Your task to perform on an android device: What's the weather today? Image 0: 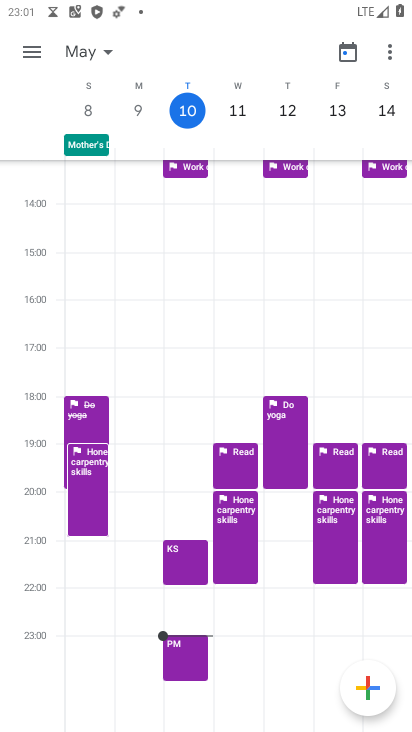
Step 0: press back button
Your task to perform on an android device: What's the weather today? Image 1: 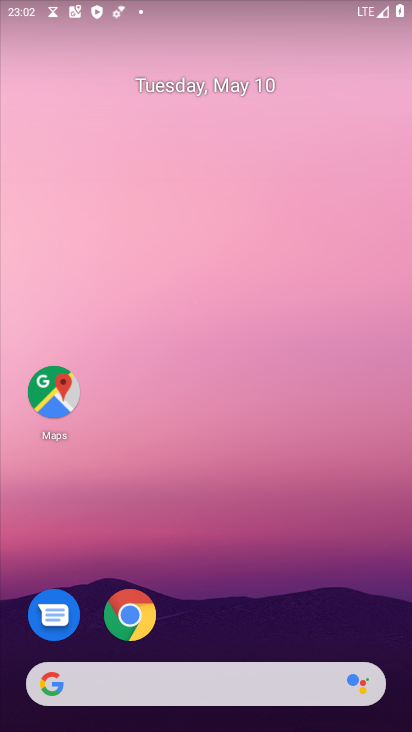
Step 1: drag from (250, 557) to (191, 60)
Your task to perform on an android device: What's the weather today? Image 2: 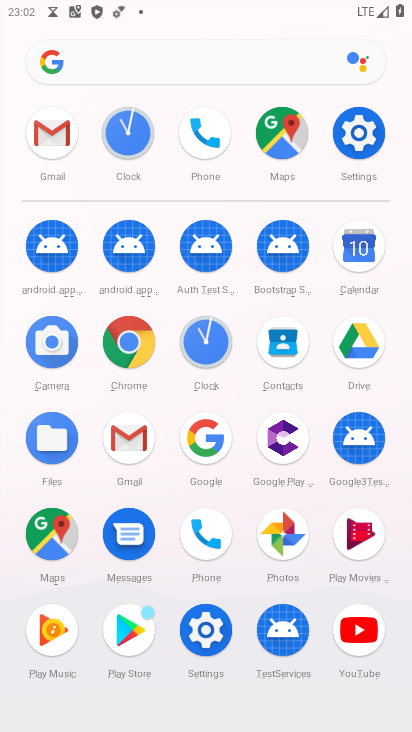
Step 2: click (204, 436)
Your task to perform on an android device: What's the weather today? Image 3: 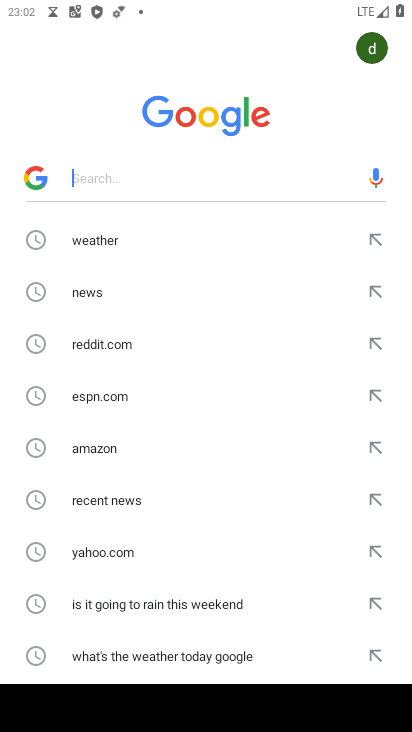
Step 3: click (82, 236)
Your task to perform on an android device: What's the weather today? Image 4: 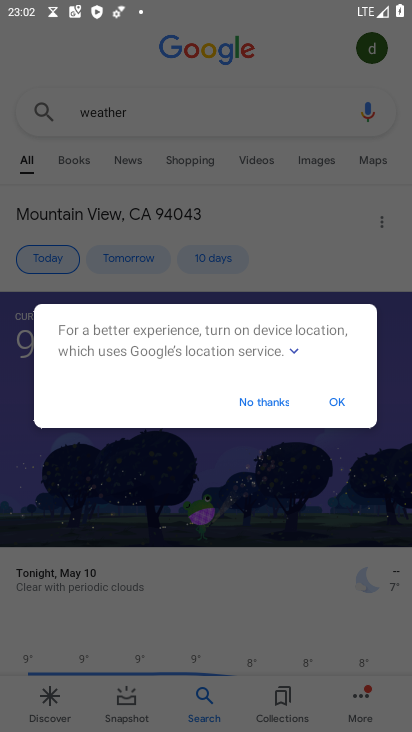
Step 4: click (285, 397)
Your task to perform on an android device: What's the weather today? Image 5: 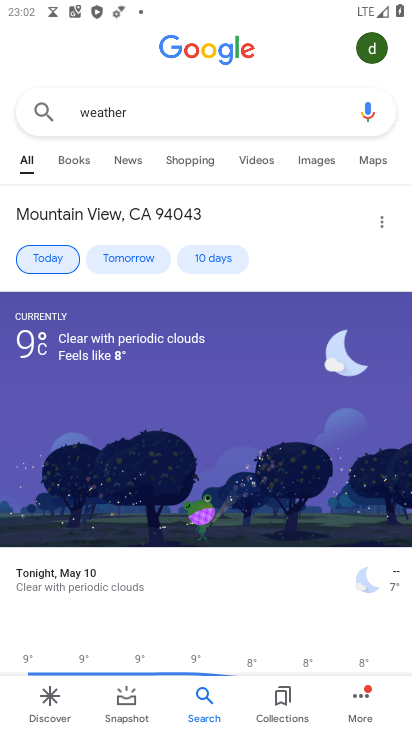
Step 5: task complete